Your task to perform on an android device: Set the phone to "Do not disturb". Image 0: 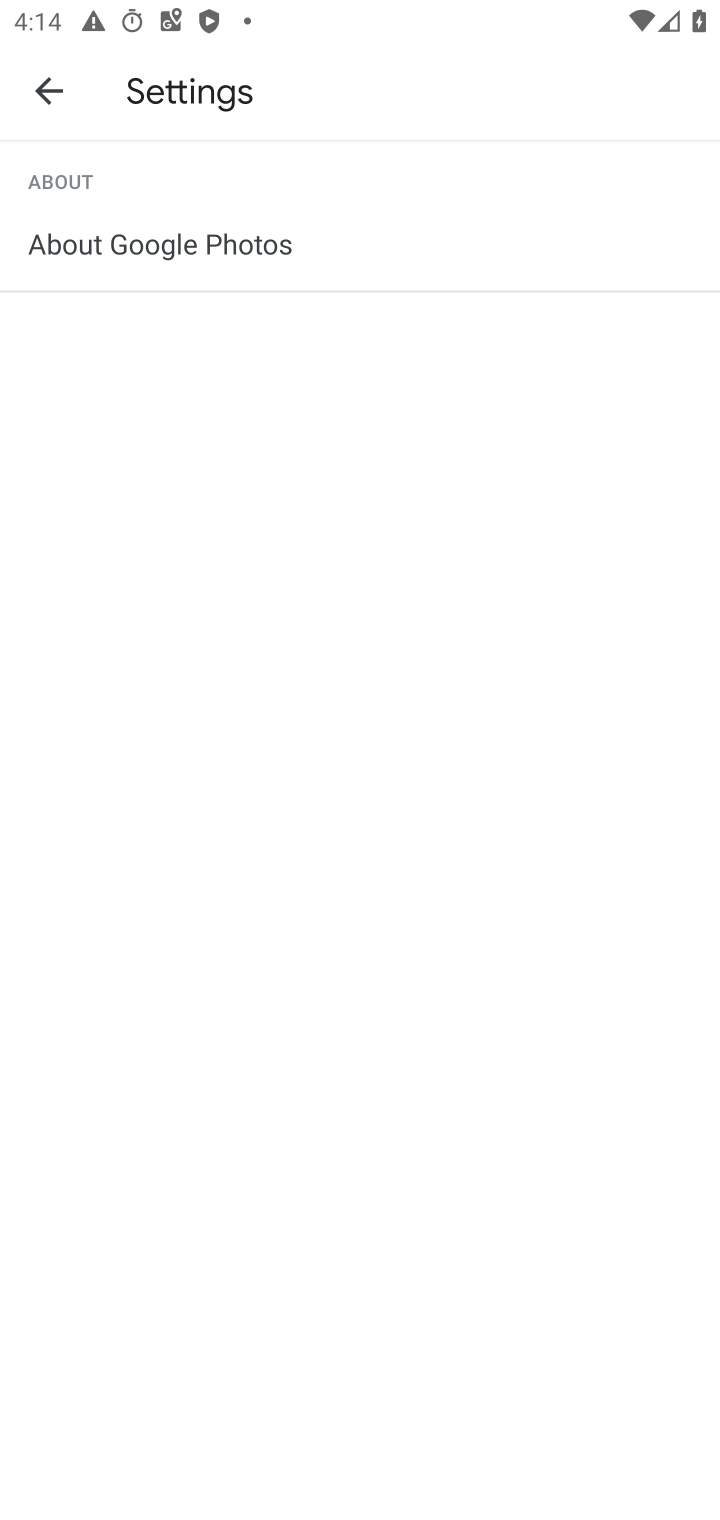
Step 0: press home button
Your task to perform on an android device: Set the phone to "Do not disturb". Image 1: 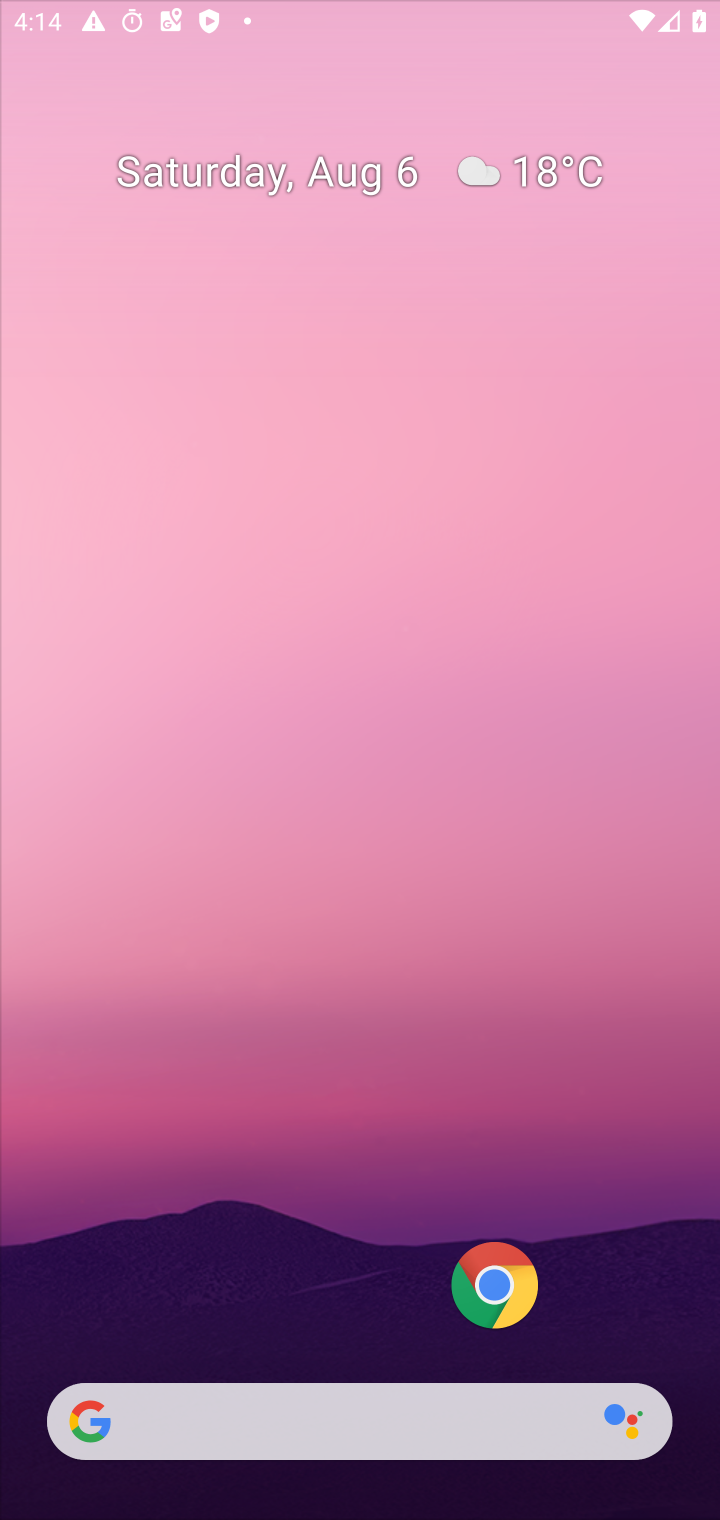
Step 1: press home button
Your task to perform on an android device: Set the phone to "Do not disturb". Image 2: 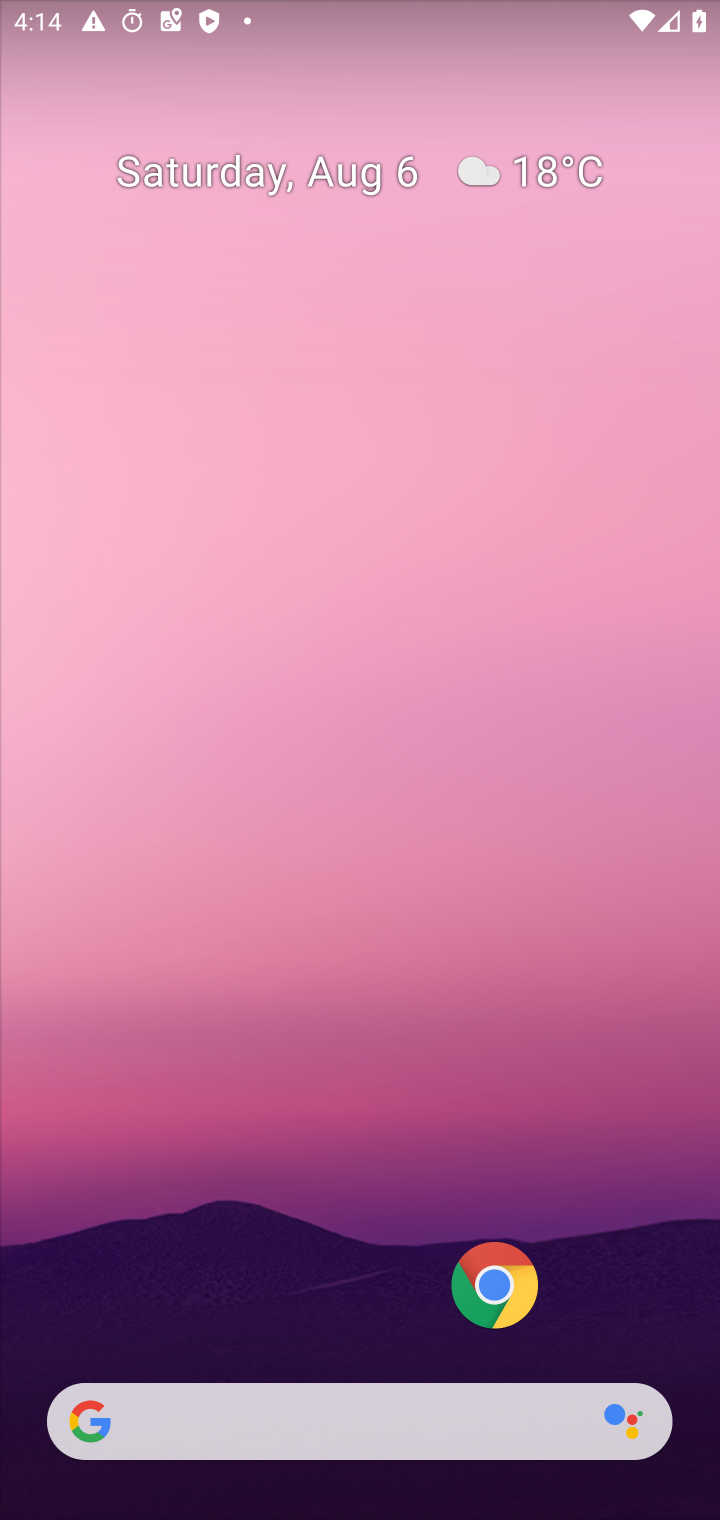
Step 2: drag from (273, 10) to (390, 851)
Your task to perform on an android device: Set the phone to "Do not disturb". Image 3: 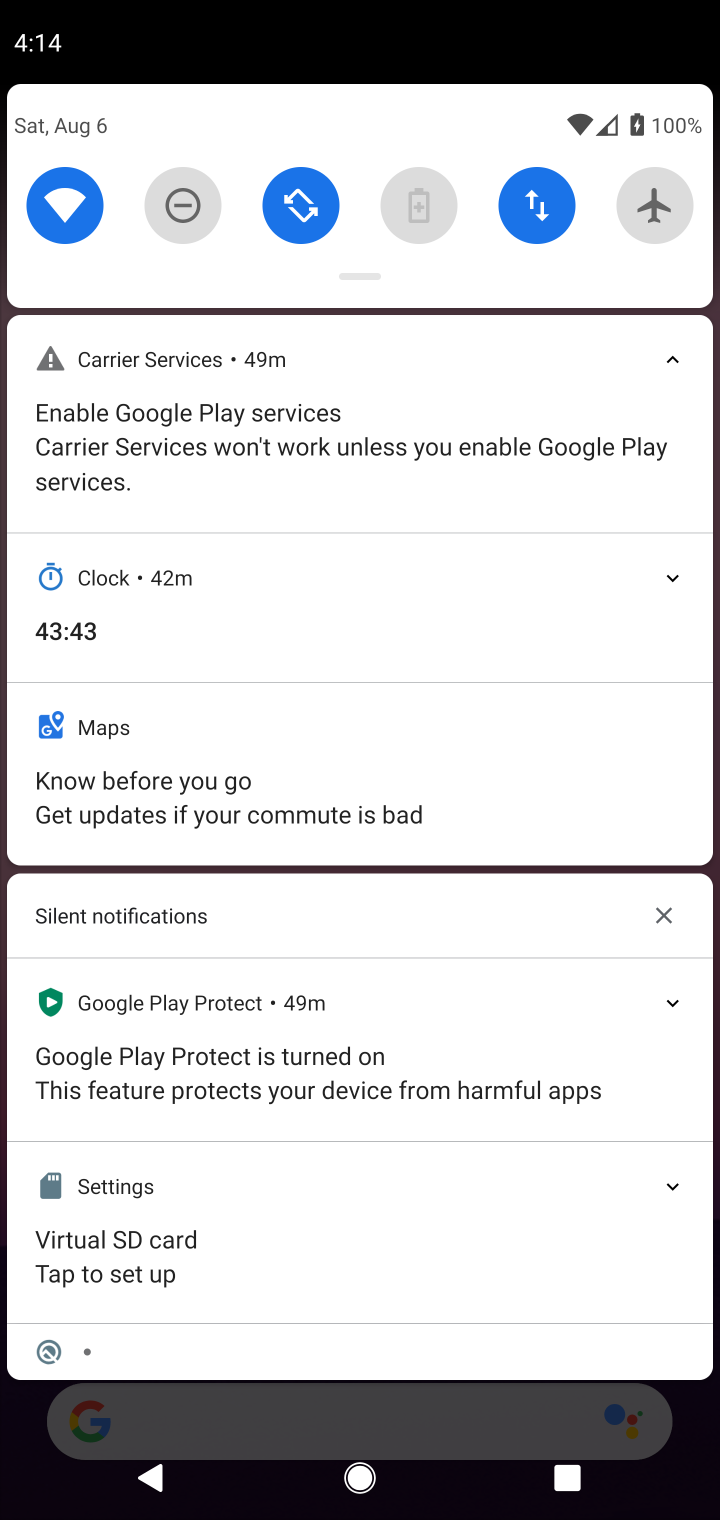
Step 3: click (175, 200)
Your task to perform on an android device: Set the phone to "Do not disturb". Image 4: 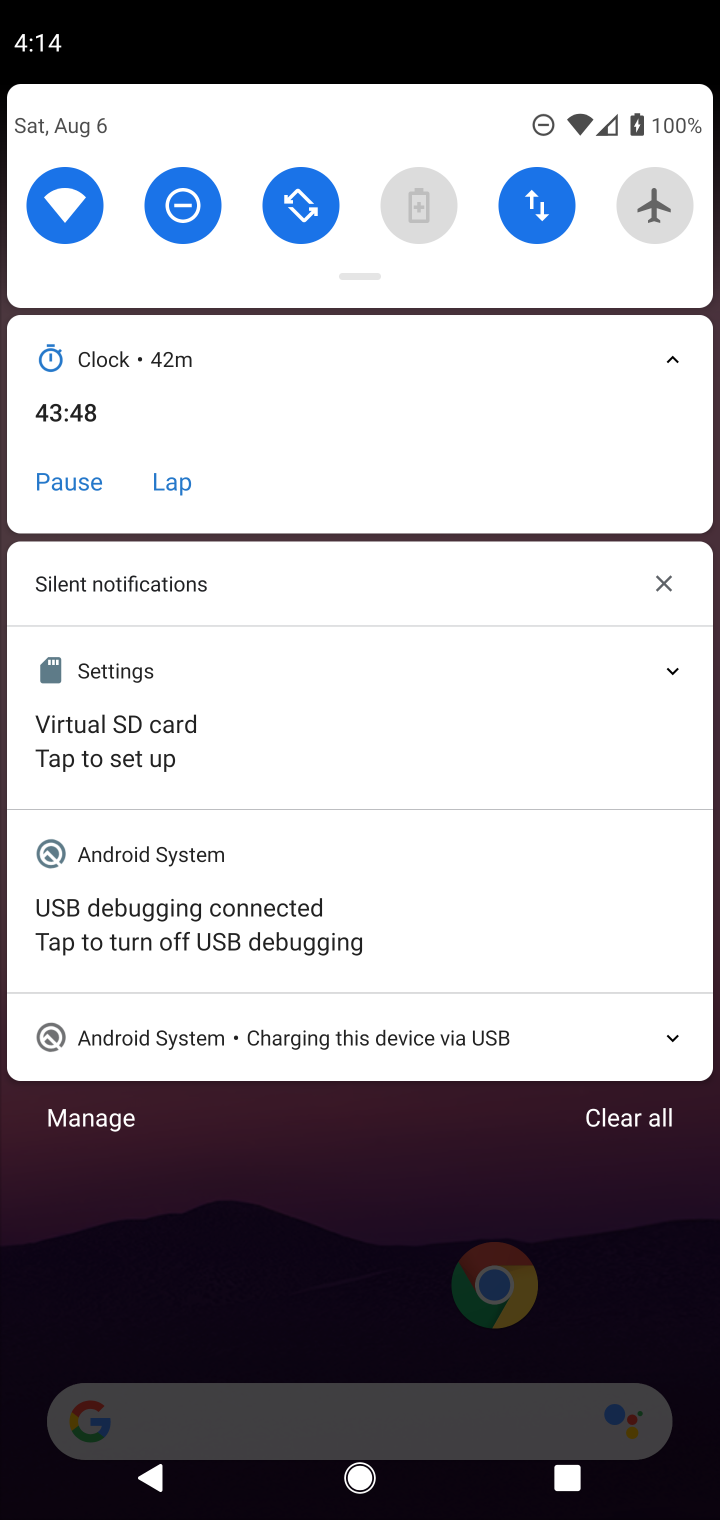
Step 4: task complete